Your task to perform on an android device: install app "Lyft - Rideshare, Bikes, Scooters & Transit" Image 0: 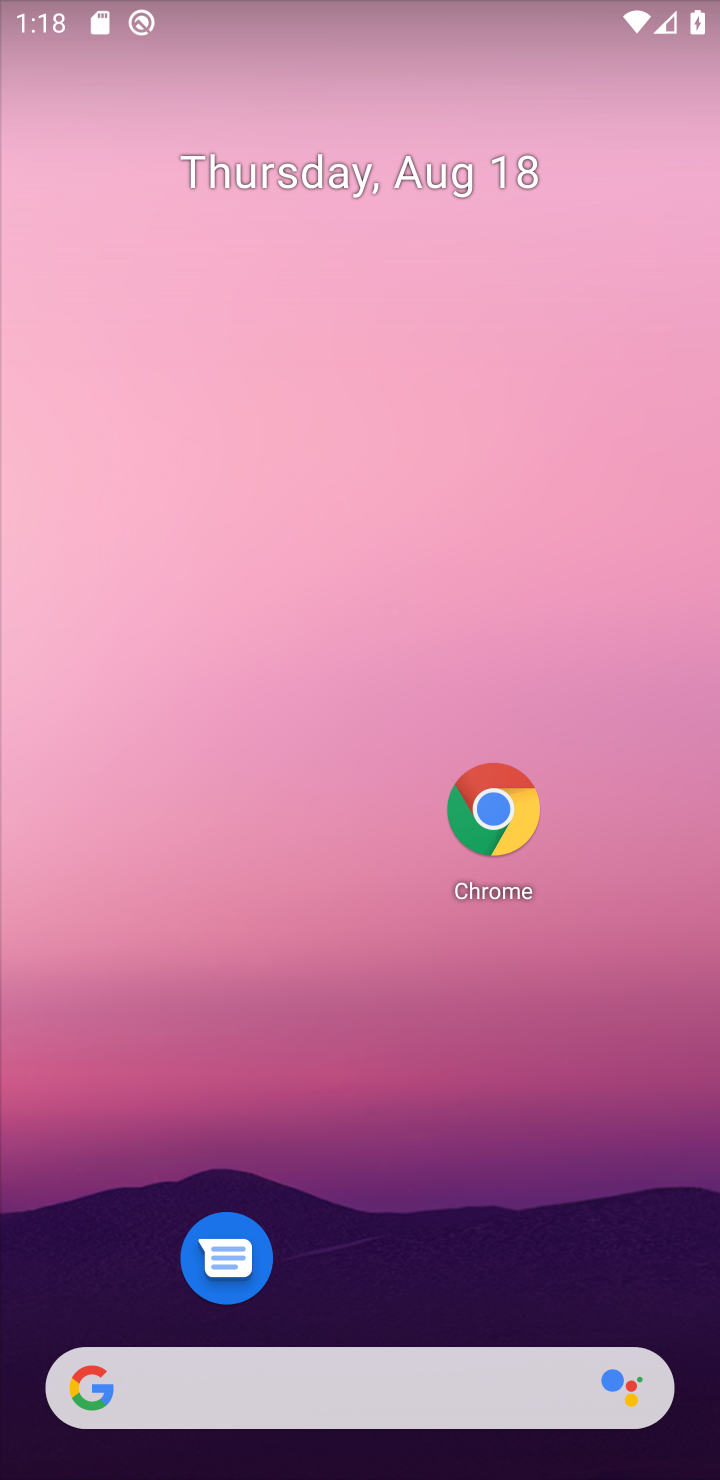
Step 0: click (382, 482)
Your task to perform on an android device: install app "Lyft - Rideshare, Bikes, Scooters & Transit" Image 1: 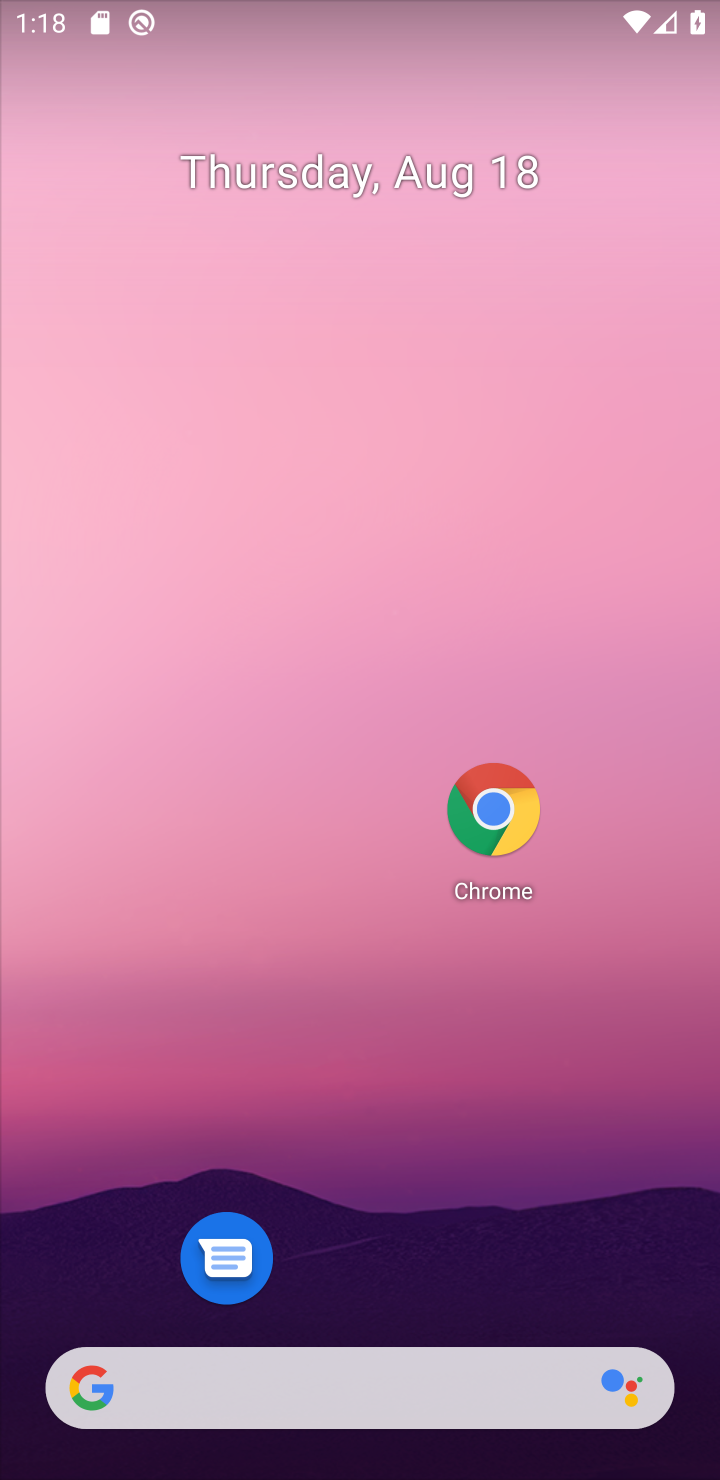
Step 1: drag from (382, 616) to (426, 454)
Your task to perform on an android device: install app "Lyft - Rideshare, Bikes, Scooters & Transit" Image 2: 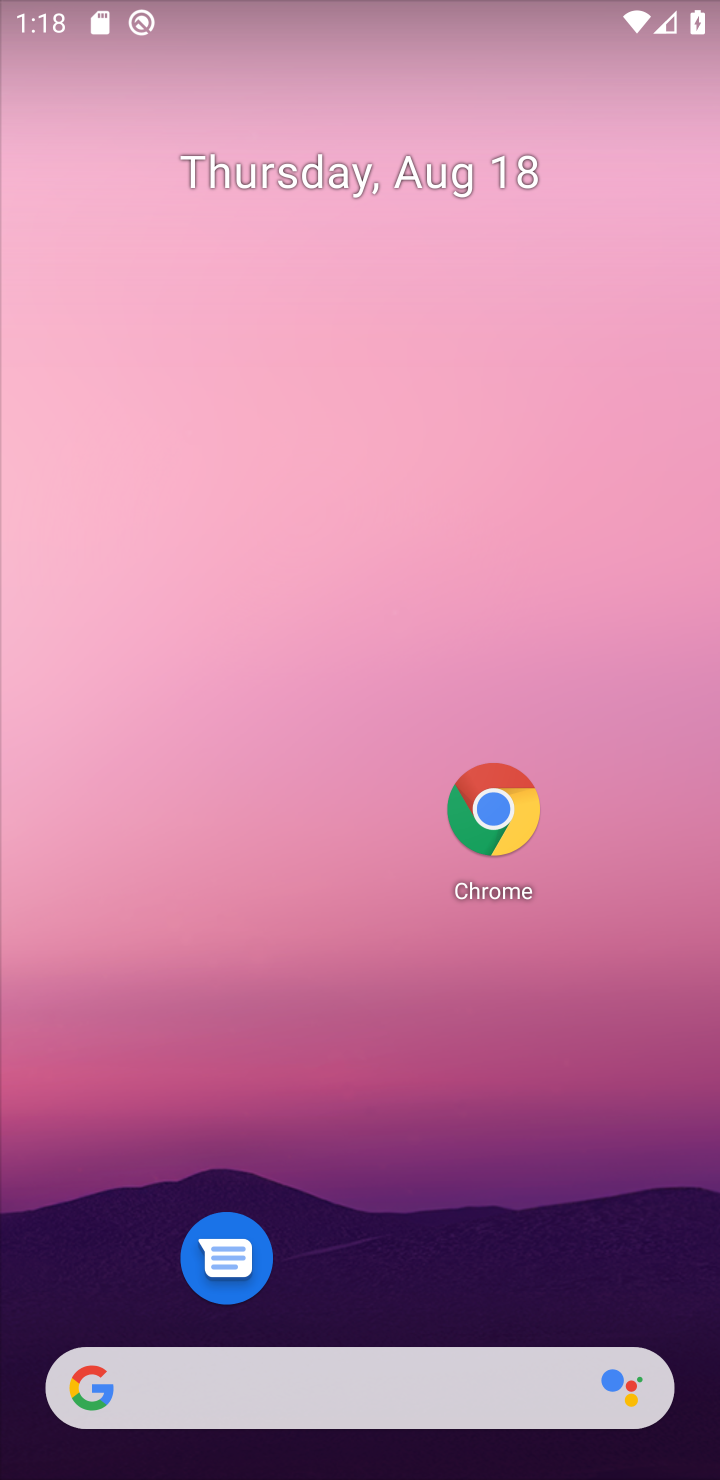
Step 2: drag from (379, 1320) to (368, 611)
Your task to perform on an android device: install app "Lyft - Rideshare, Bikes, Scooters & Transit" Image 3: 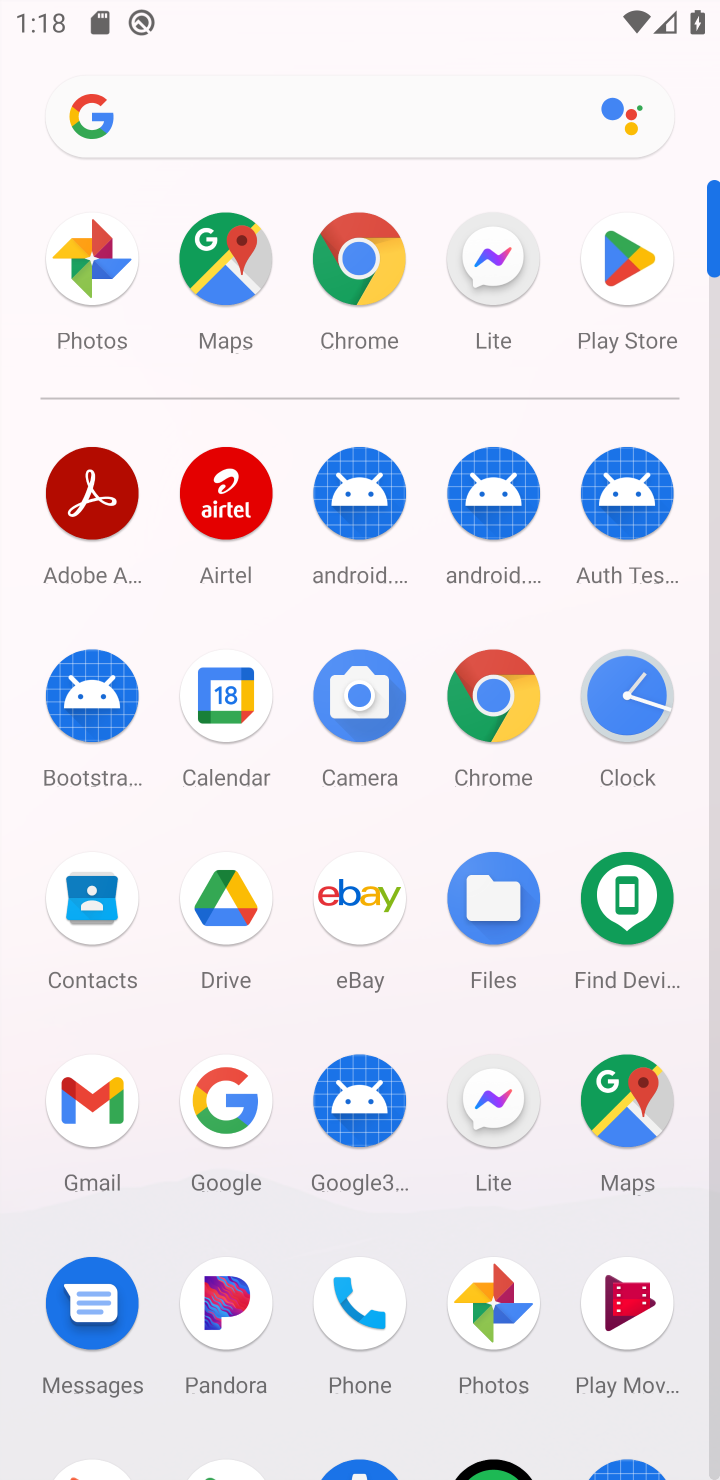
Step 3: click (636, 289)
Your task to perform on an android device: install app "Lyft - Rideshare, Bikes, Scooters & Transit" Image 4: 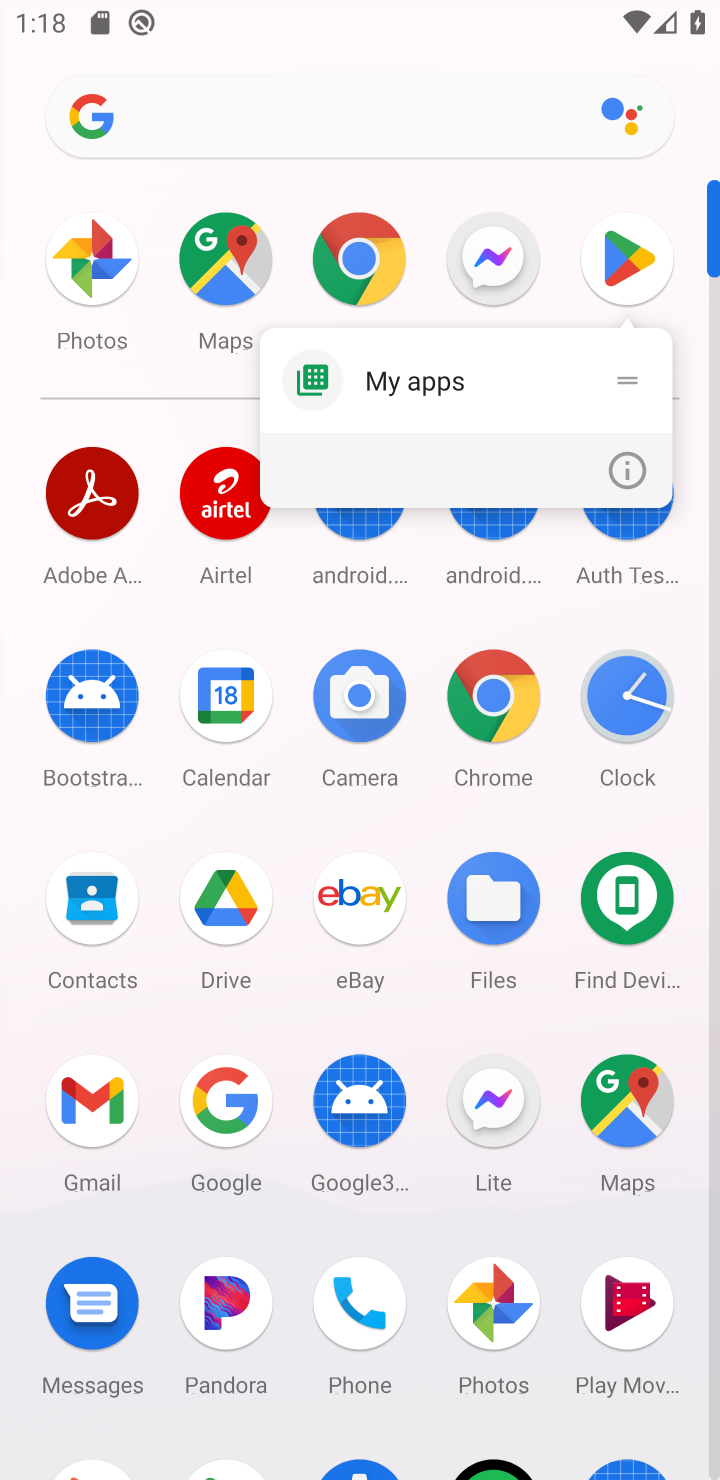
Step 4: click (636, 289)
Your task to perform on an android device: install app "Lyft - Rideshare, Bikes, Scooters & Transit" Image 5: 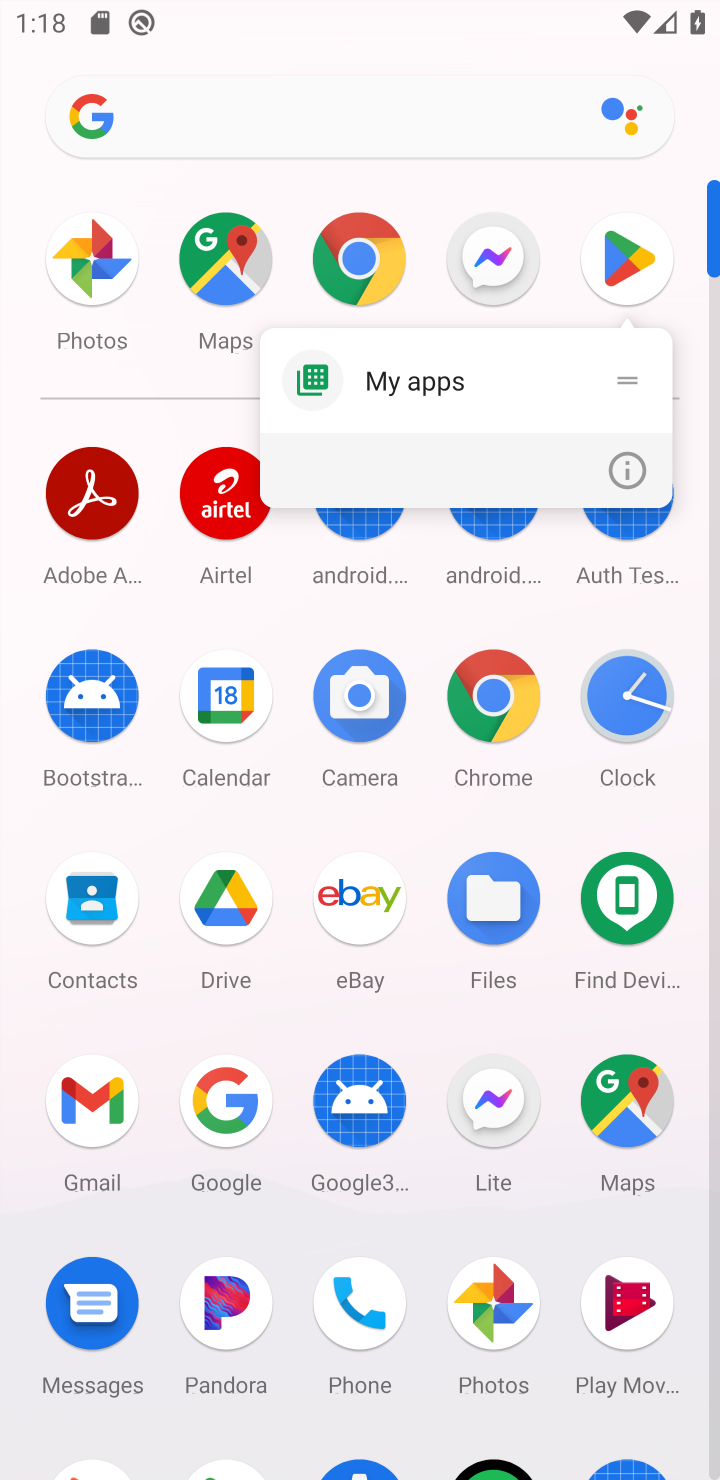
Step 5: click (619, 281)
Your task to perform on an android device: install app "Lyft - Rideshare, Bikes, Scooters & Transit" Image 6: 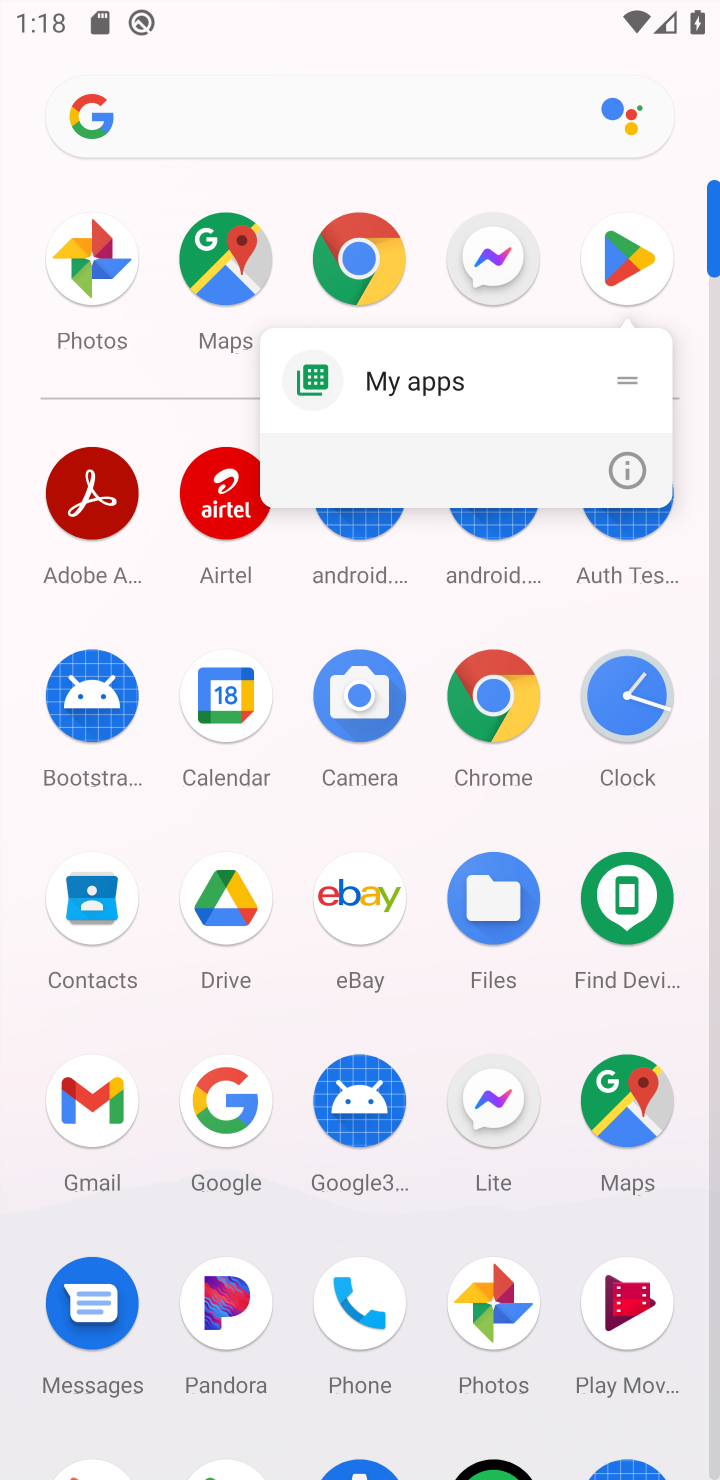
Step 6: drag from (352, 1096) to (445, 690)
Your task to perform on an android device: install app "Lyft - Rideshare, Bikes, Scooters & Transit" Image 7: 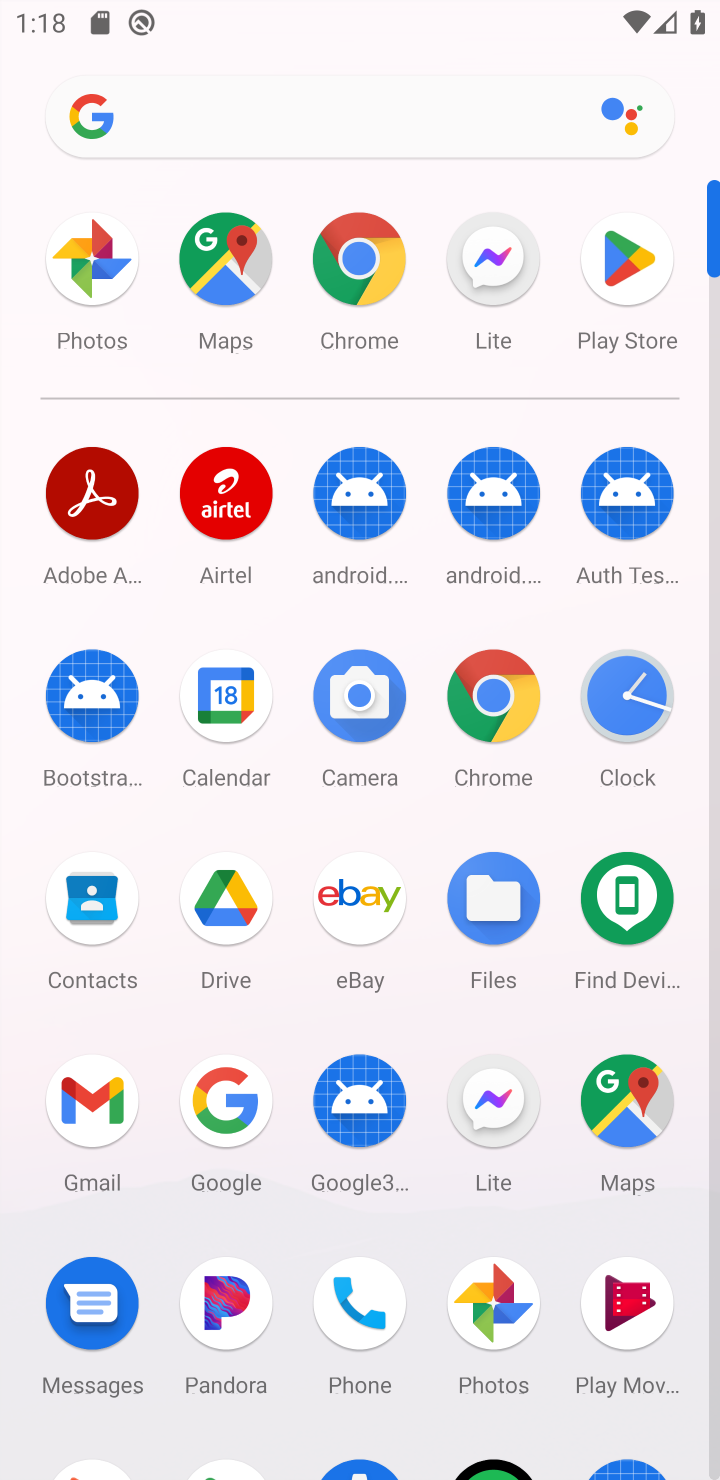
Step 7: drag from (362, 1352) to (474, 348)
Your task to perform on an android device: install app "Lyft - Rideshare, Bikes, Scooters & Transit" Image 8: 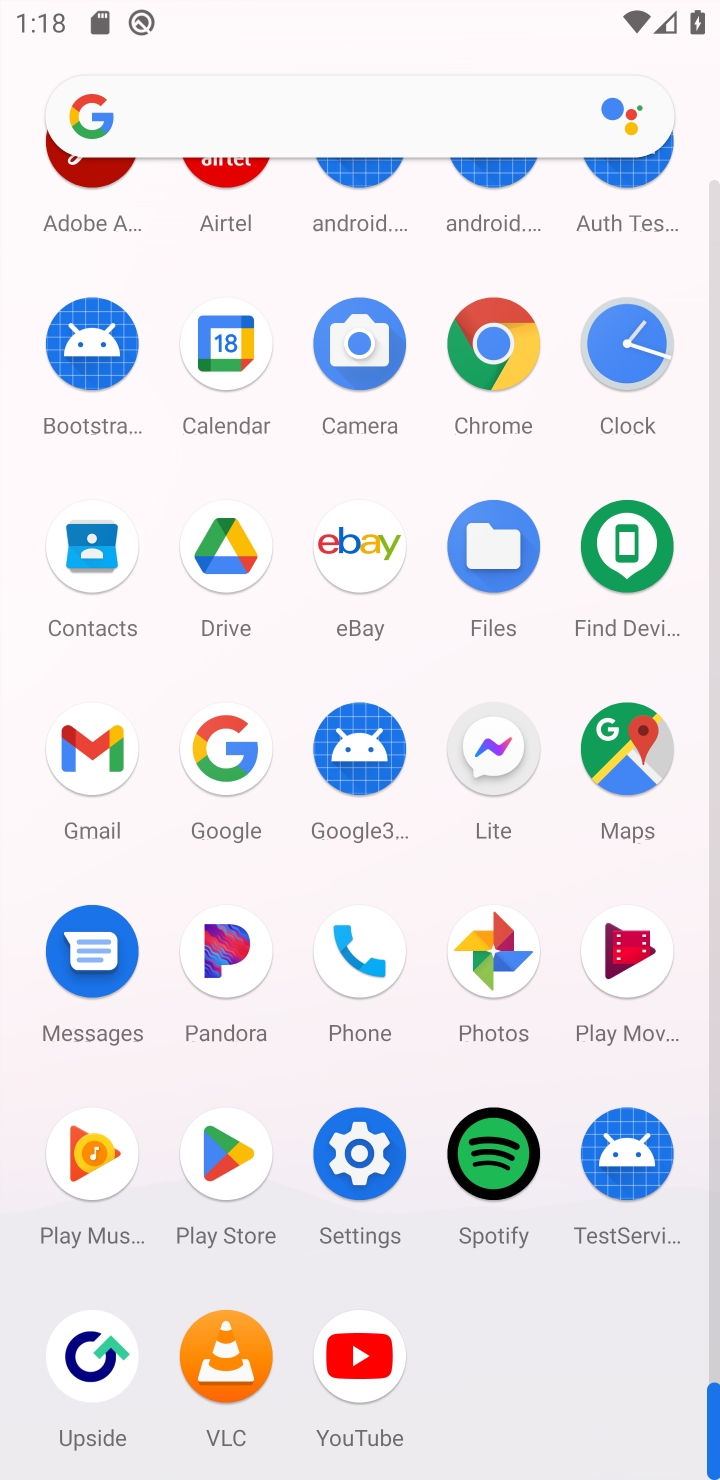
Step 8: click (204, 1172)
Your task to perform on an android device: install app "Lyft - Rideshare, Bikes, Scooters & Transit" Image 9: 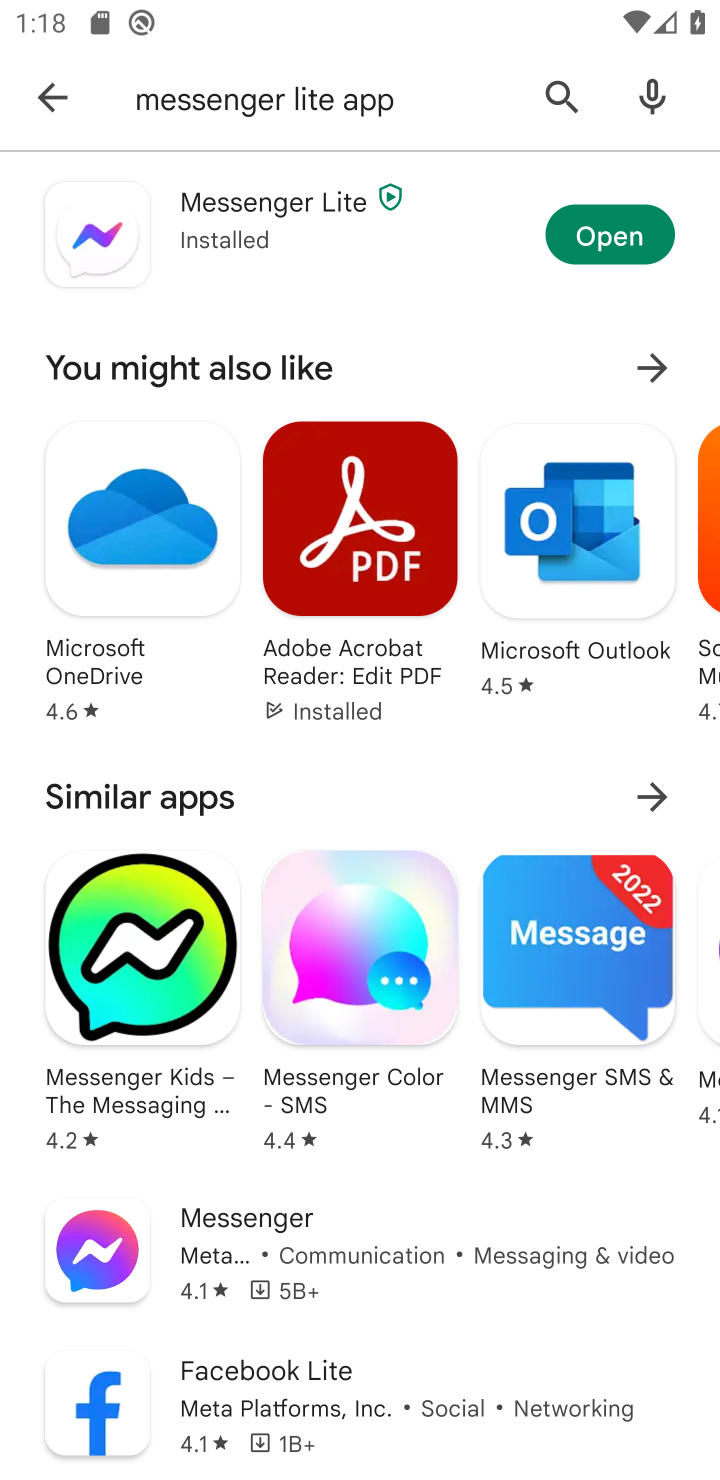
Step 9: click (560, 94)
Your task to perform on an android device: install app "Lyft - Rideshare, Bikes, Scooters & Transit" Image 10: 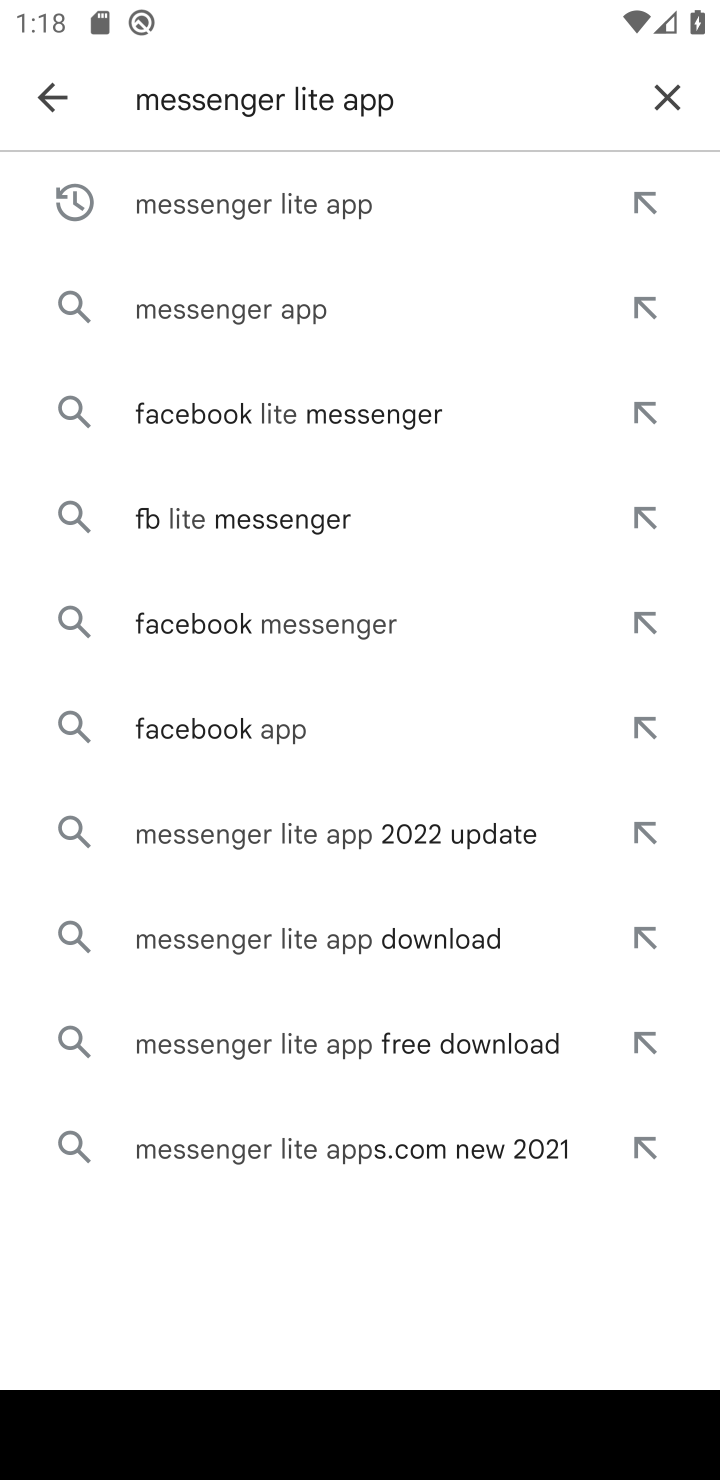
Step 10: click (668, 91)
Your task to perform on an android device: install app "Lyft - Rideshare, Bikes, Scooters & Transit" Image 11: 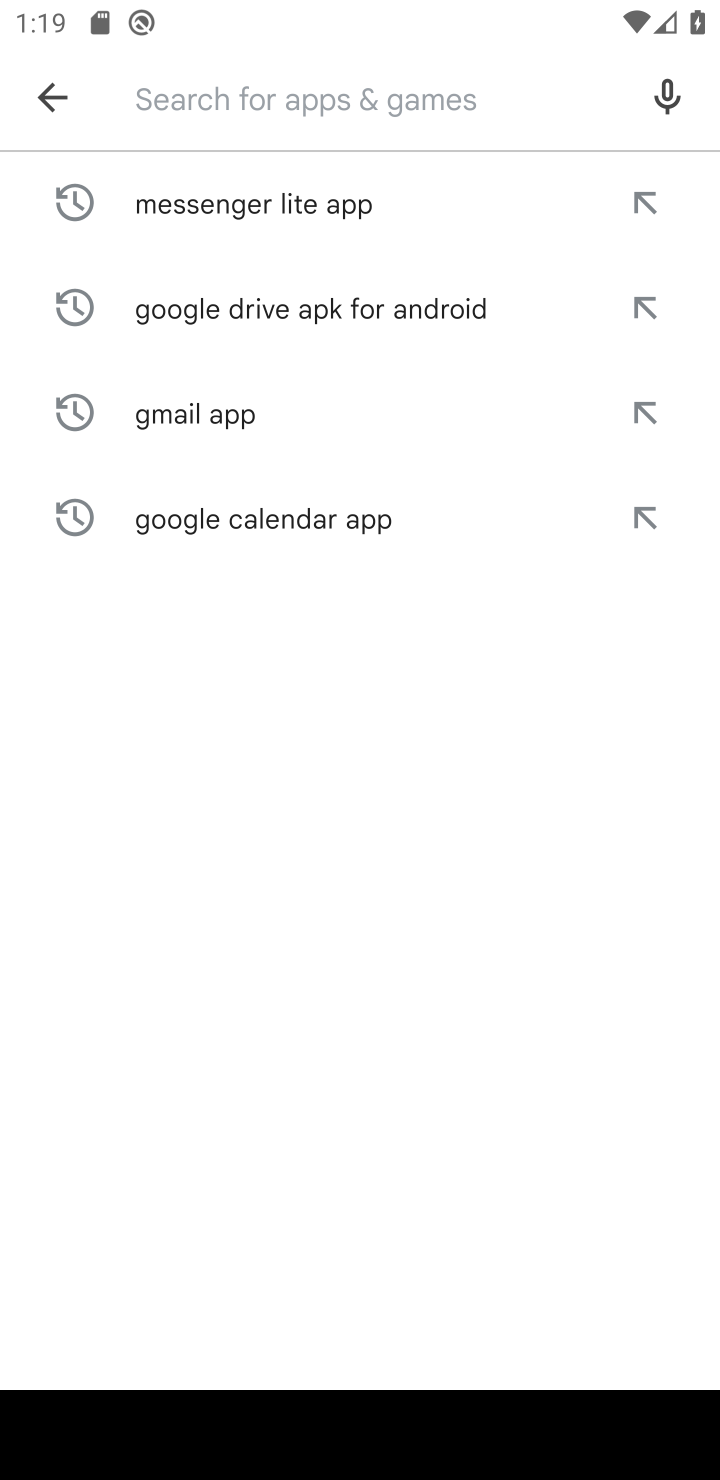
Step 11: click (381, 90)
Your task to perform on an android device: install app "Lyft - Rideshare, Bikes, Scooters & Transit" Image 12: 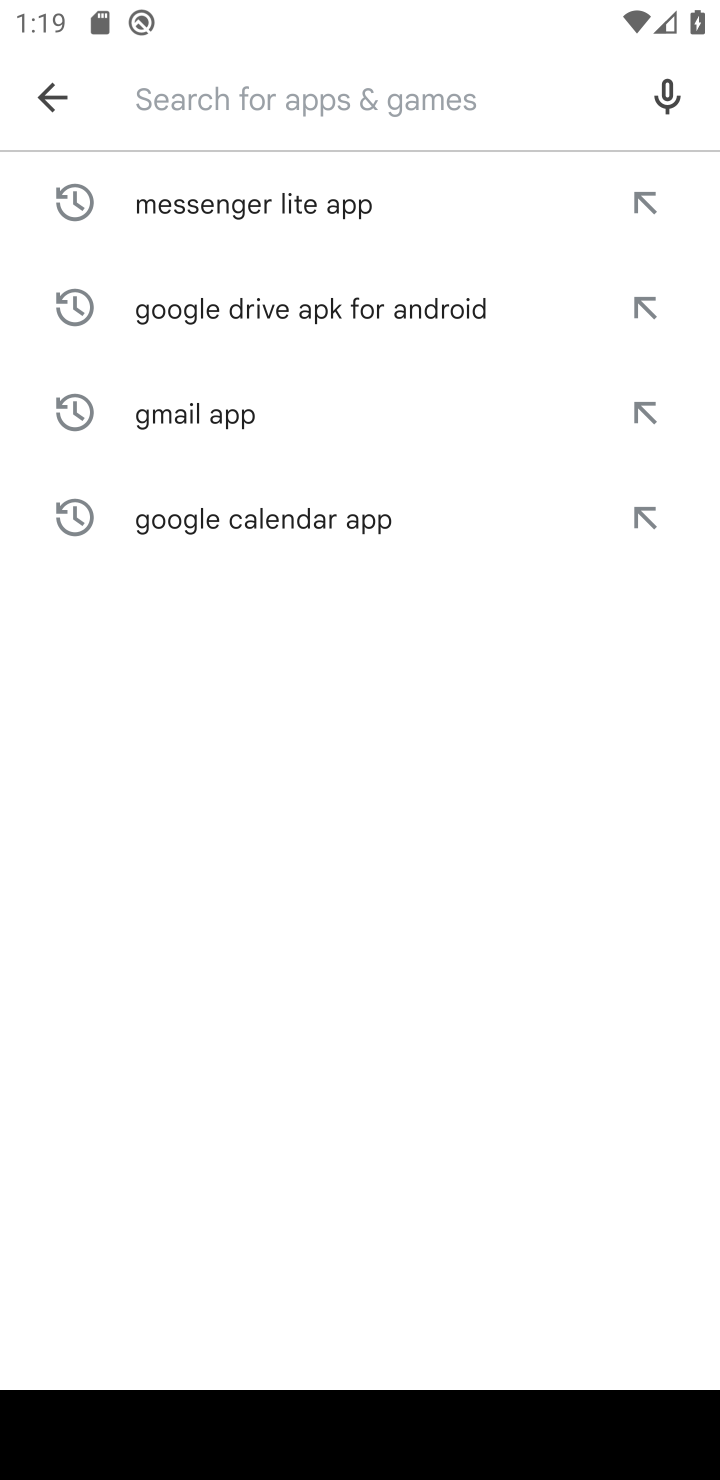
Step 12: type "Lyft - Rideshare, Bikes, Scooters & Transit "
Your task to perform on an android device: install app "Lyft - Rideshare, Bikes, Scooters & Transit" Image 13: 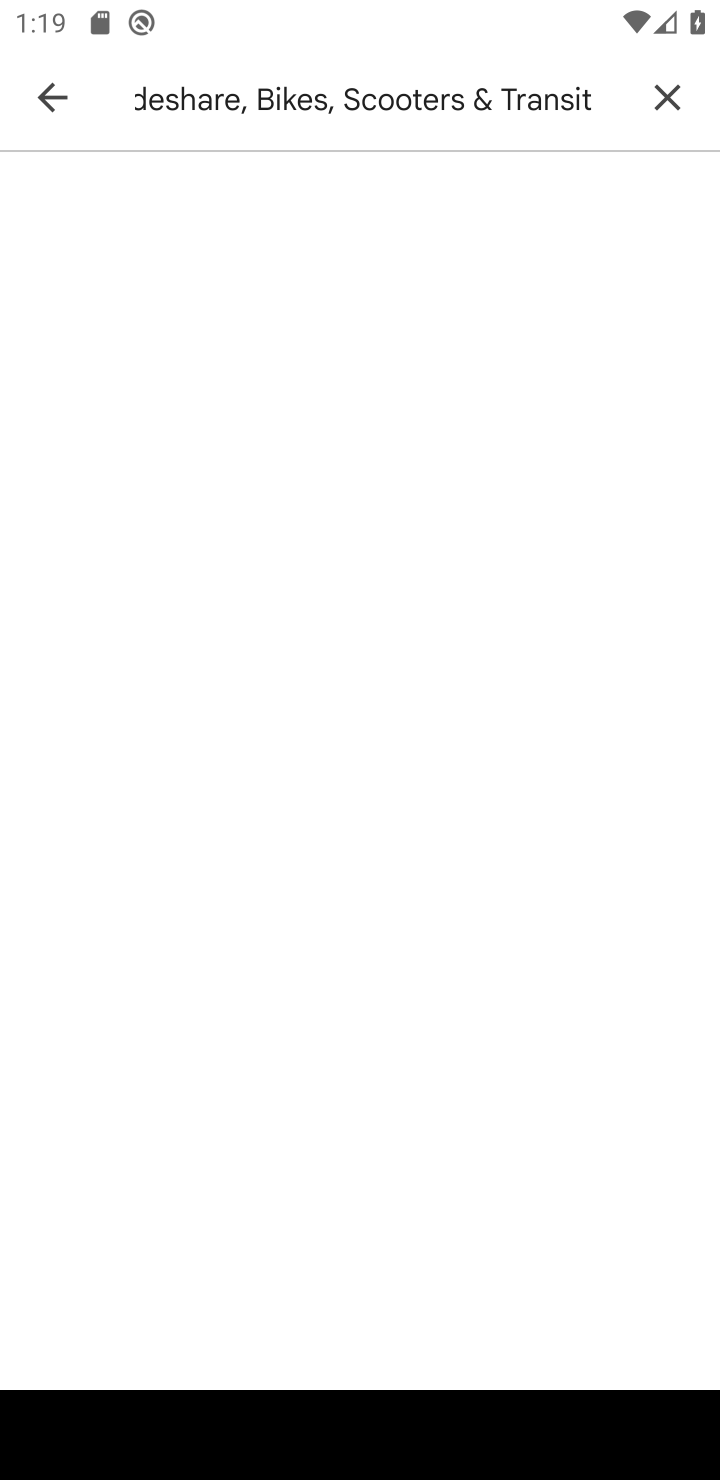
Step 13: click (326, 96)
Your task to perform on an android device: install app "Lyft - Rideshare, Bikes, Scooters & Transit" Image 14: 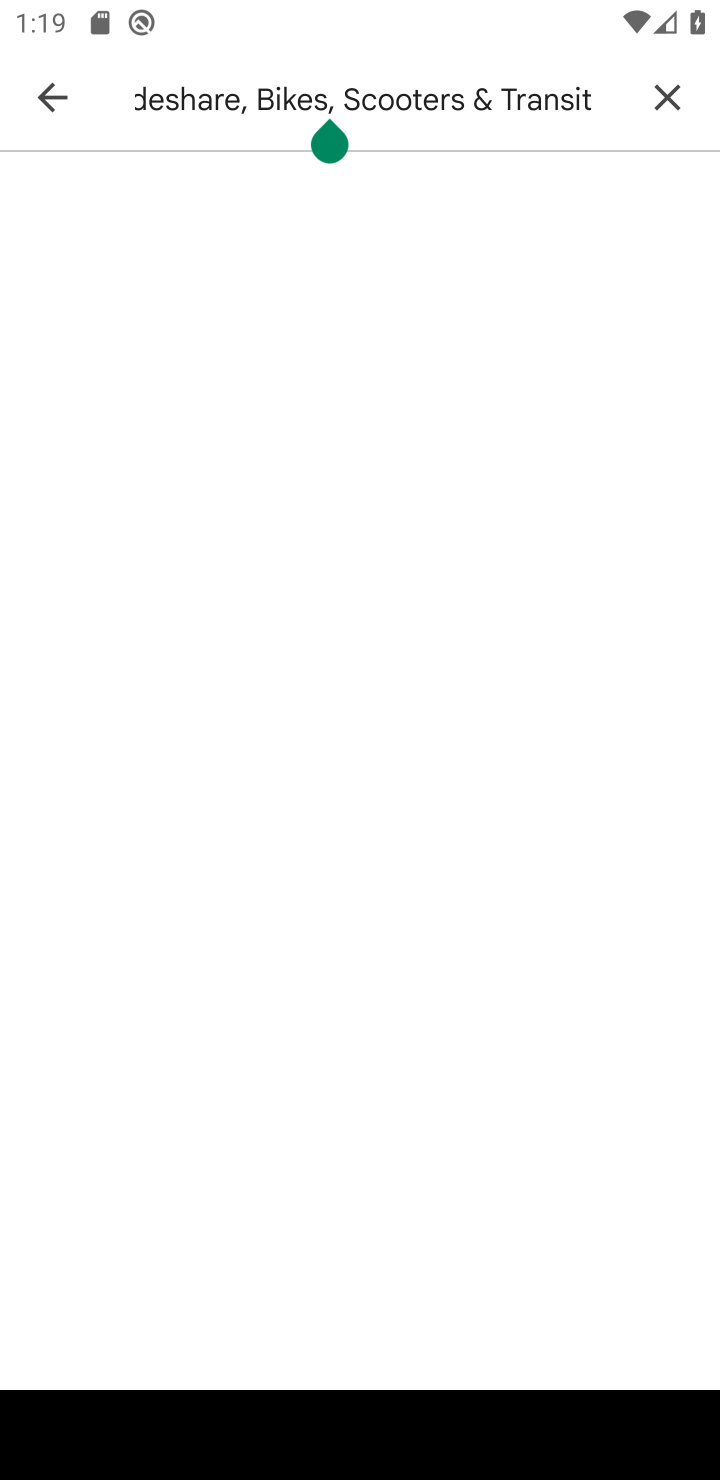
Step 14: click (326, 96)
Your task to perform on an android device: install app "Lyft - Rideshare, Bikes, Scooters & Transit" Image 15: 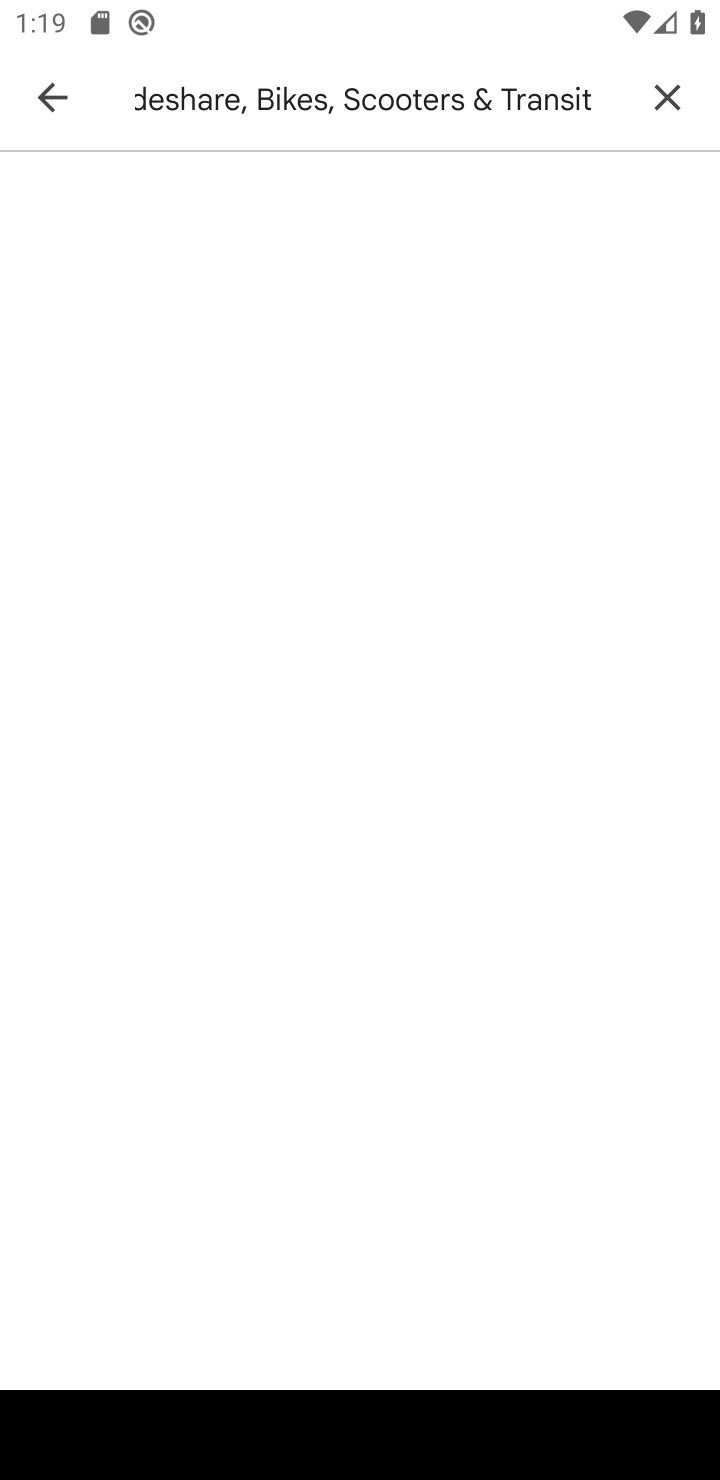
Step 15: click (602, 105)
Your task to perform on an android device: install app "Lyft - Rideshare, Bikes, Scooters & Transit" Image 16: 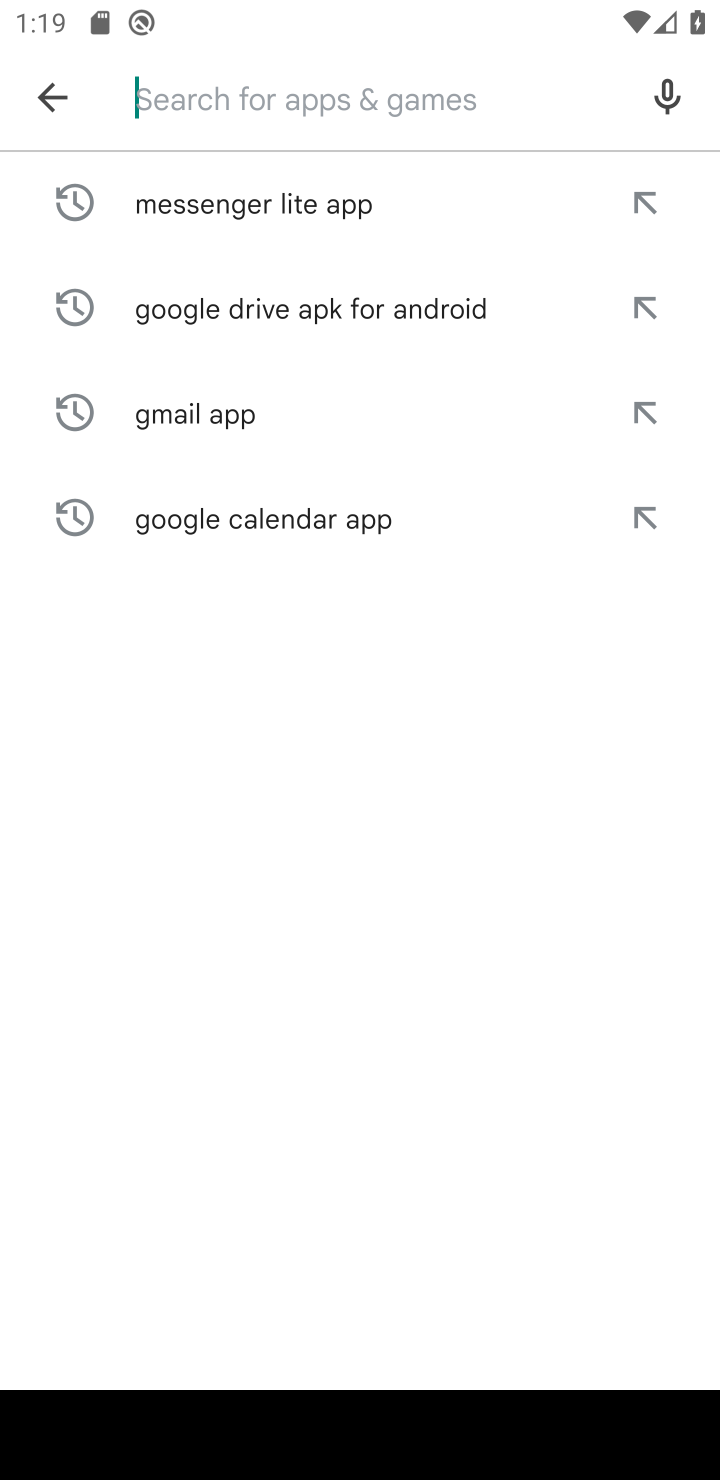
Step 16: click (294, 65)
Your task to perform on an android device: install app "Lyft - Rideshare, Bikes, Scooters & Transit" Image 17: 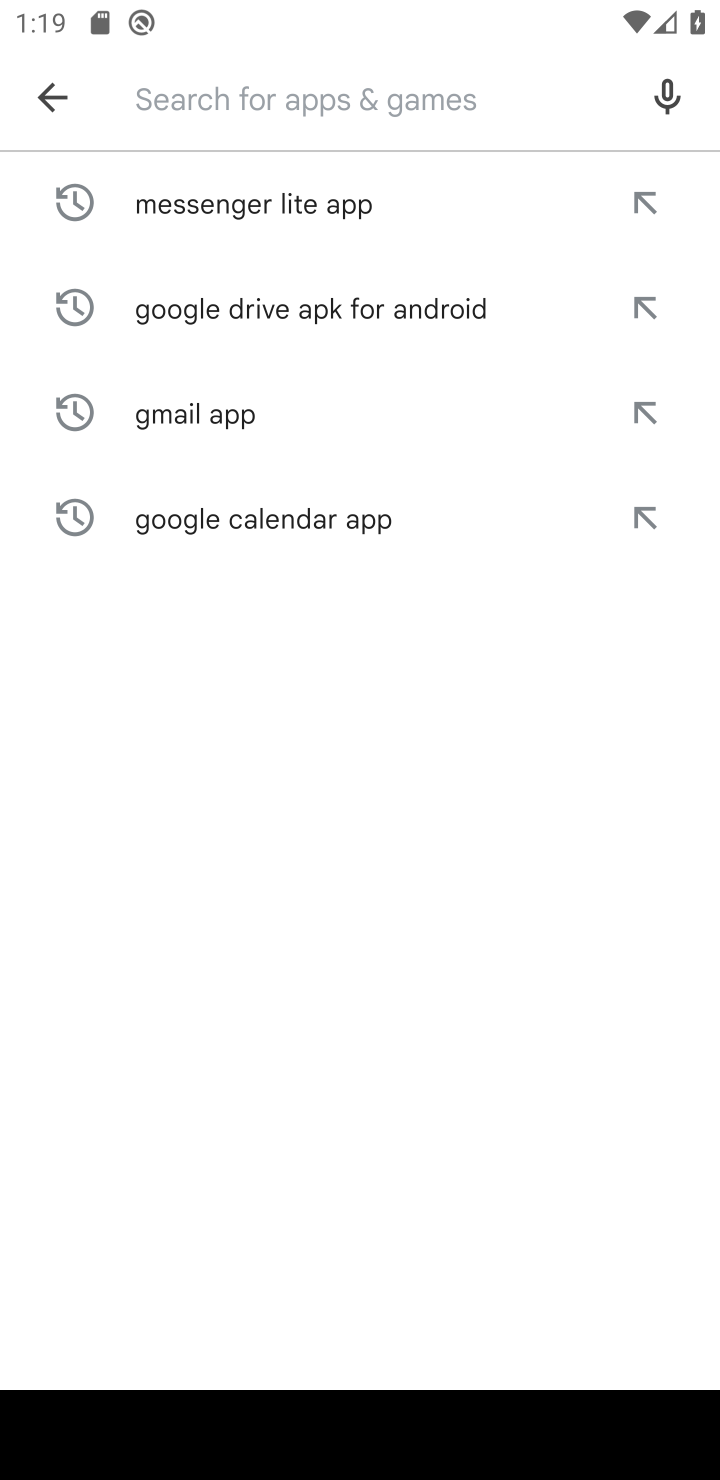
Step 17: type "Lyft  "
Your task to perform on an android device: install app "Lyft - Rideshare, Bikes, Scooters & Transit" Image 18: 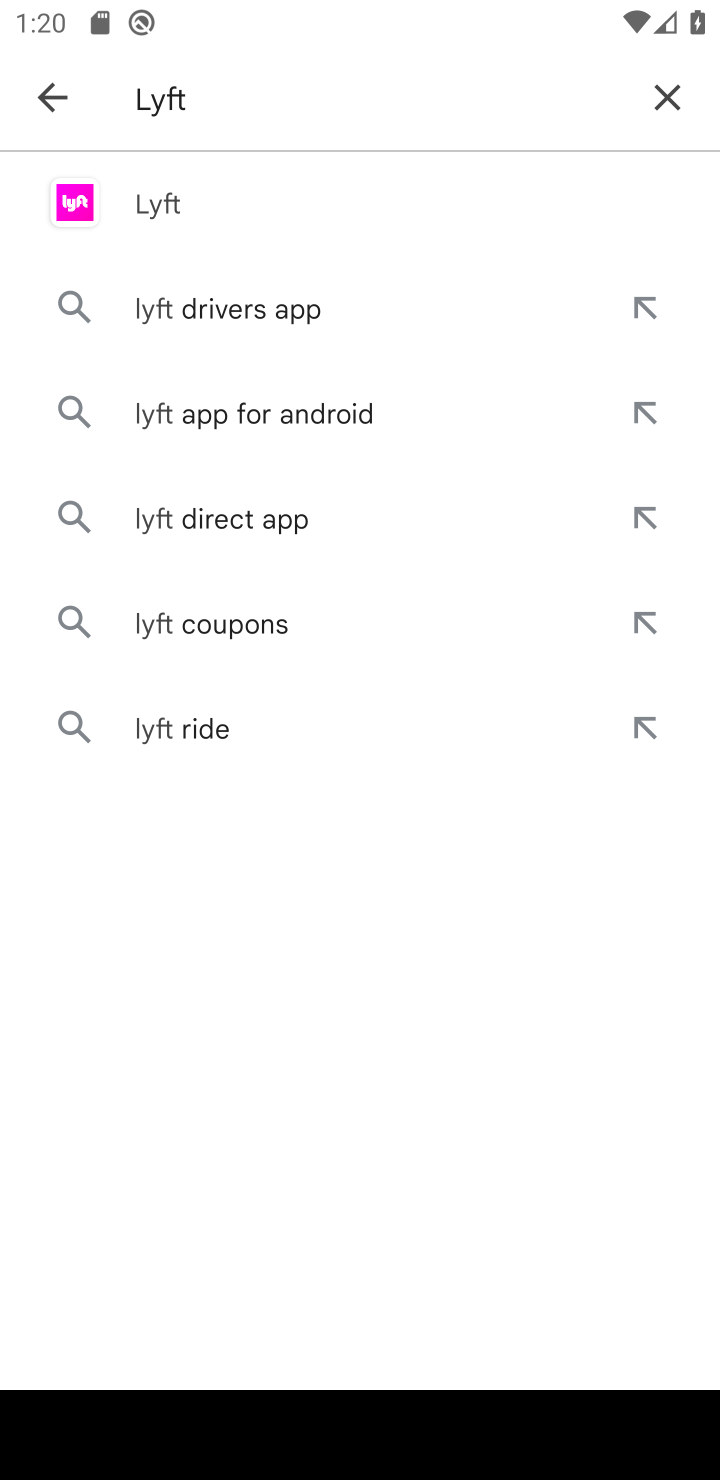
Step 18: click (247, 307)
Your task to perform on an android device: install app "Lyft - Rideshare, Bikes, Scooters & Transit" Image 19: 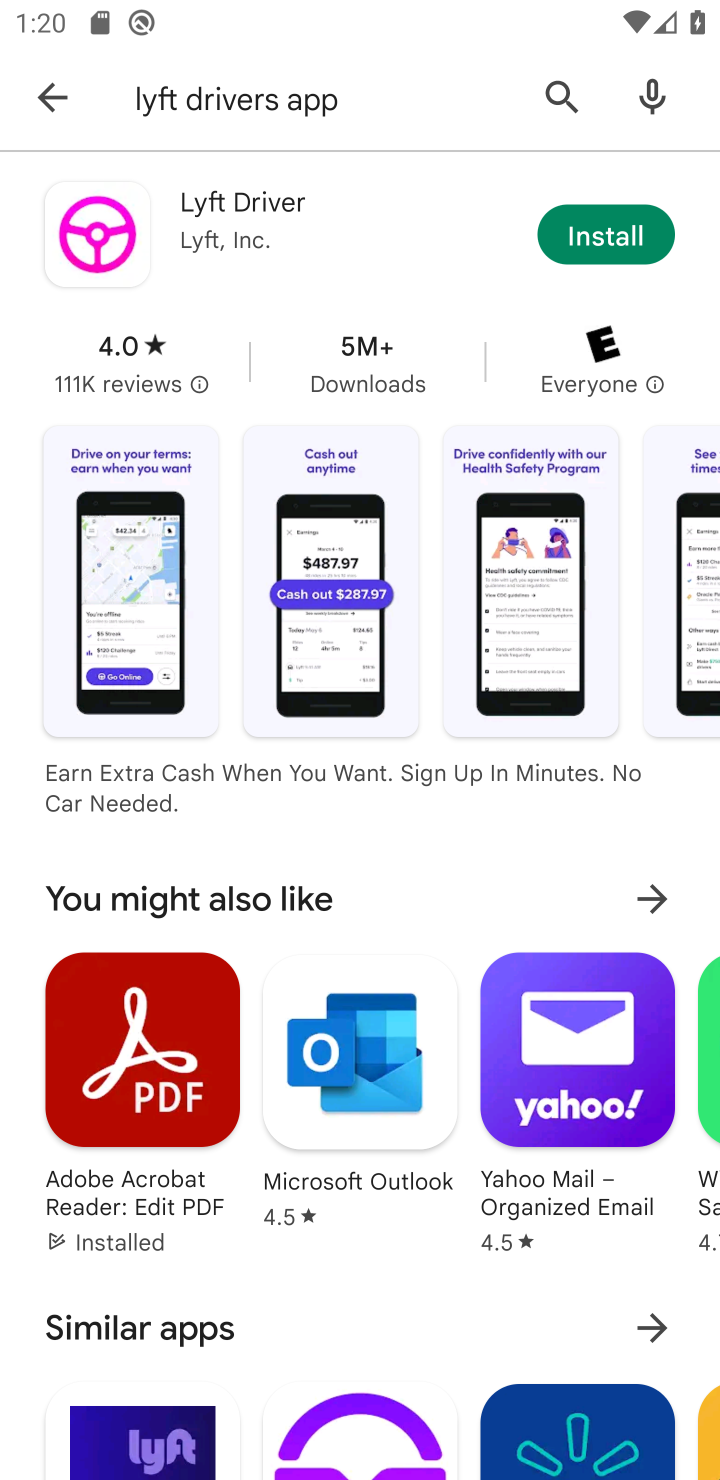
Step 19: click (615, 251)
Your task to perform on an android device: install app "Lyft - Rideshare, Bikes, Scooters & Transit" Image 20: 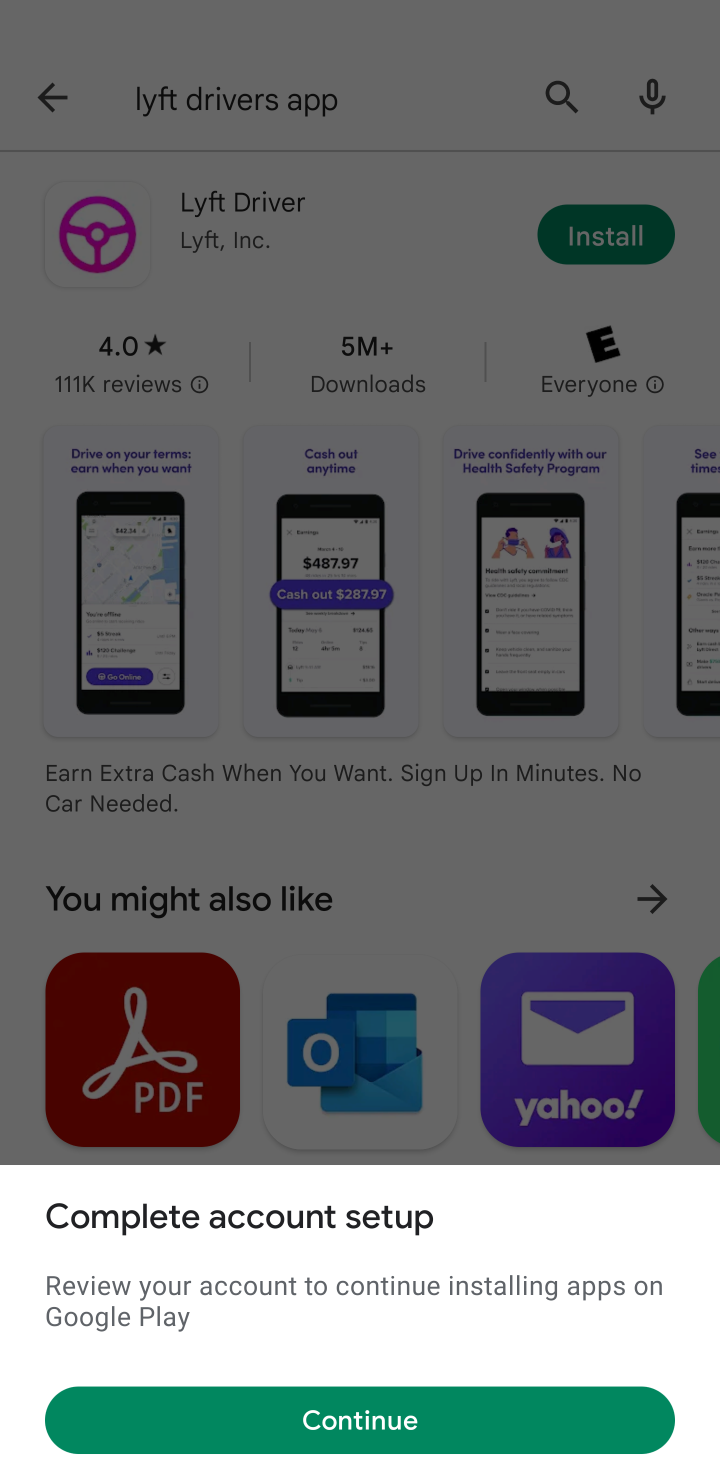
Step 20: task complete